Your task to perform on an android device: Go to internet settings Image 0: 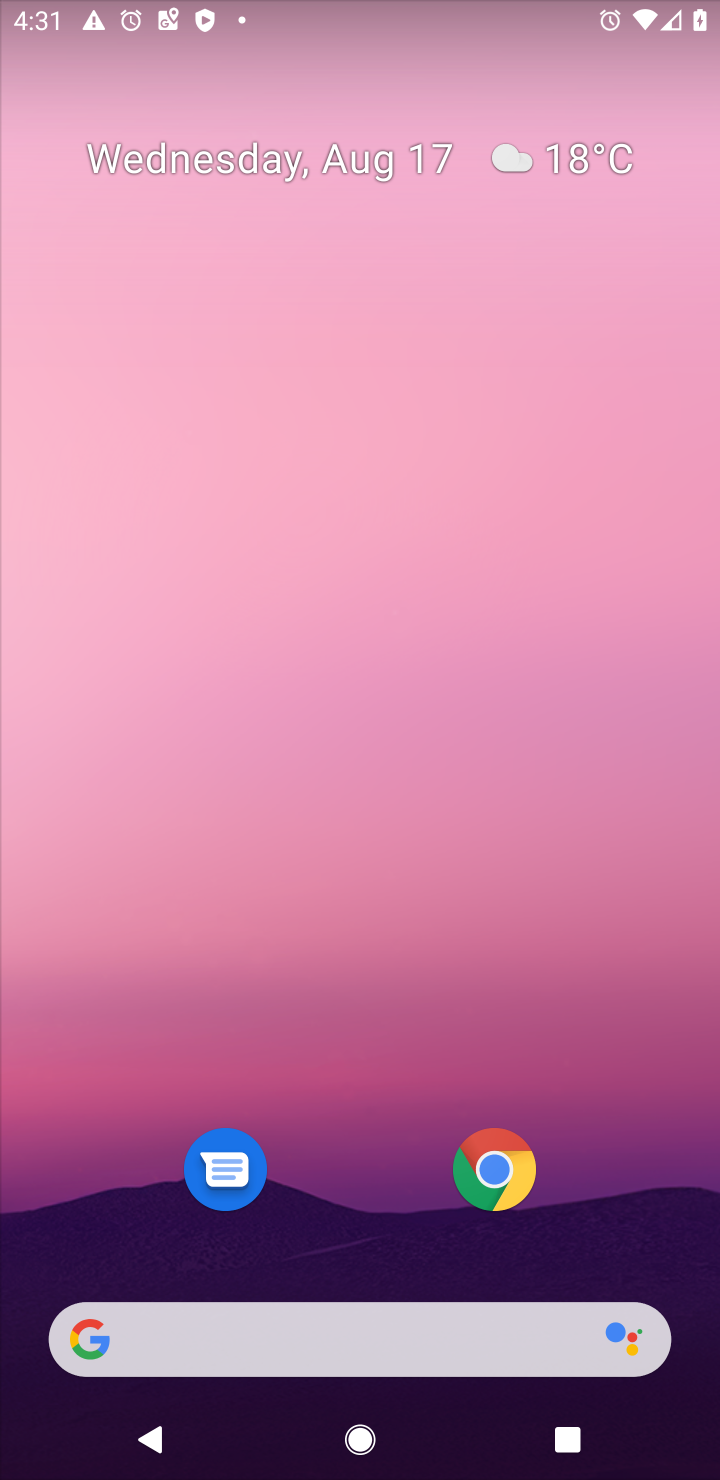
Step 0: drag from (342, 1093) to (331, 183)
Your task to perform on an android device: Go to internet settings Image 1: 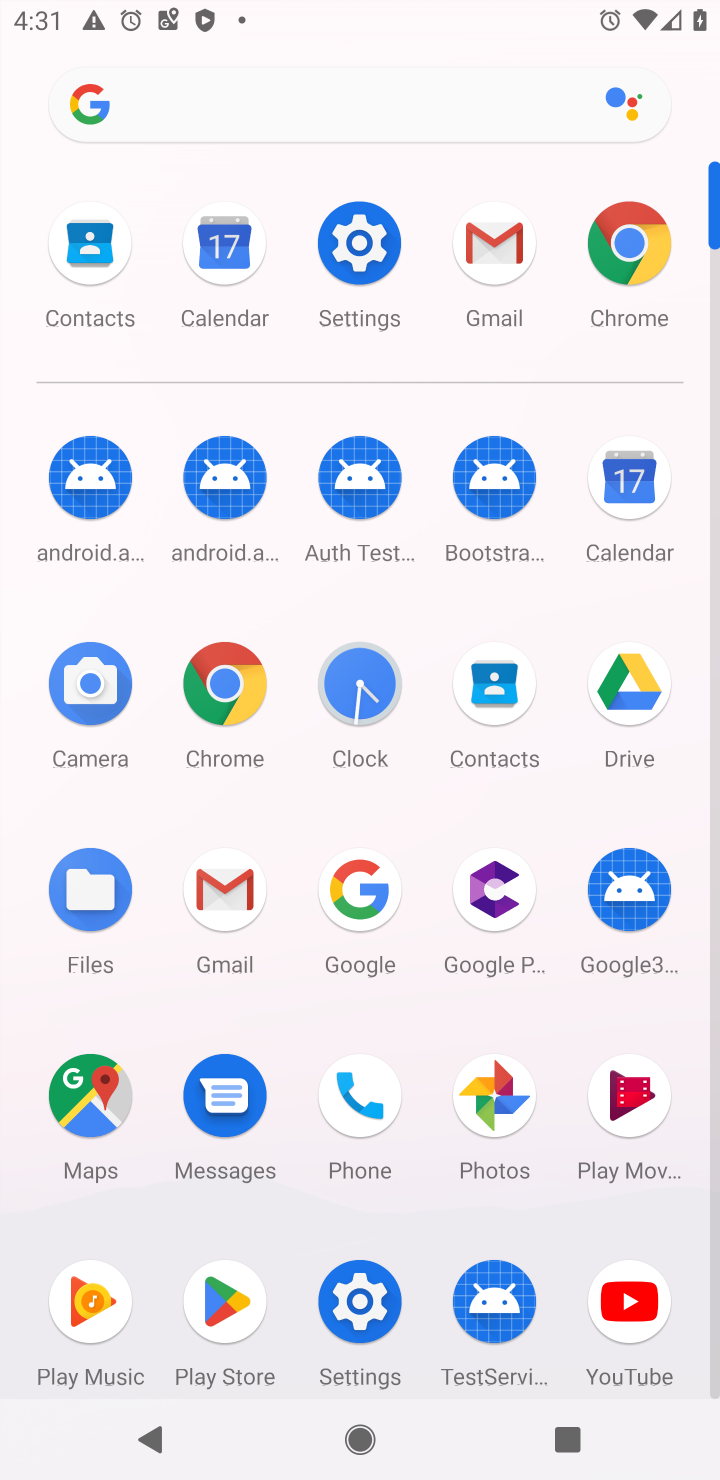
Step 1: click (361, 1294)
Your task to perform on an android device: Go to internet settings Image 2: 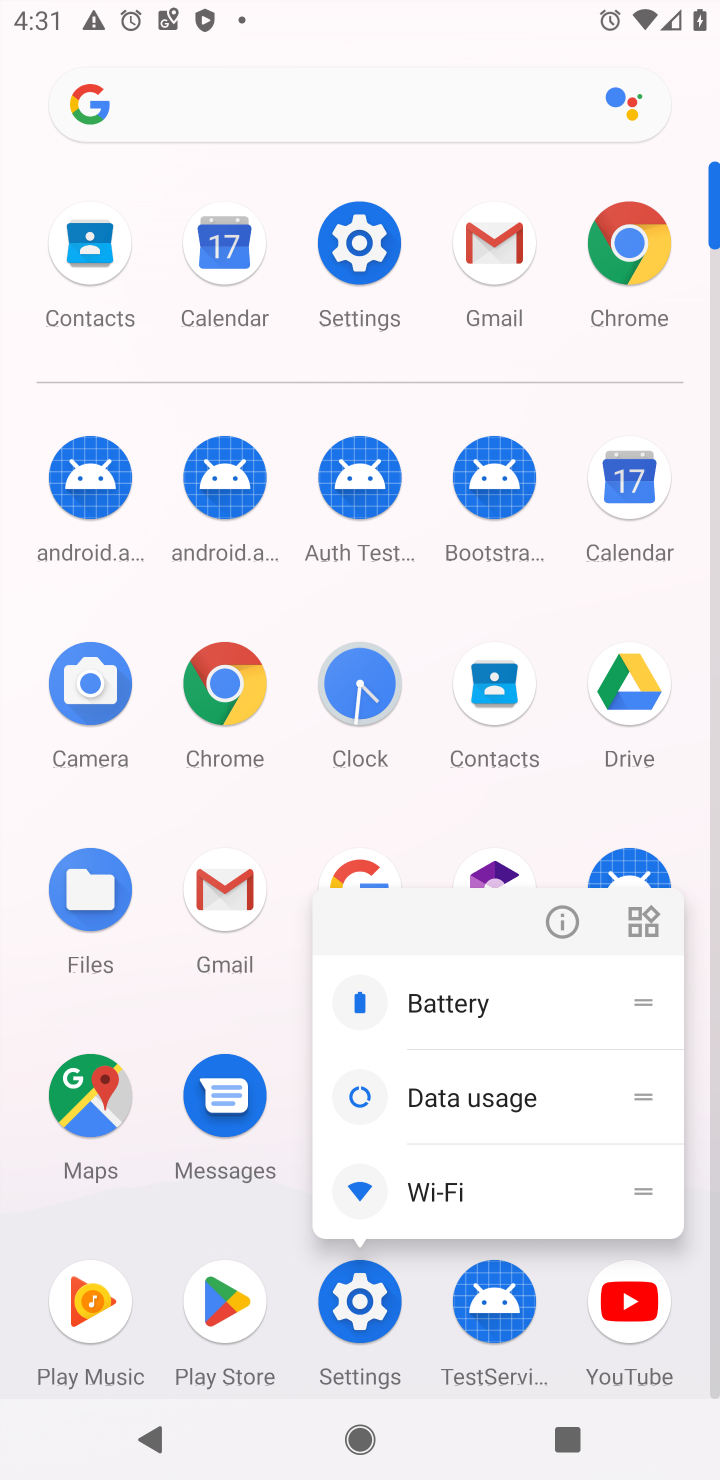
Step 2: click (366, 1304)
Your task to perform on an android device: Go to internet settings Image 3: 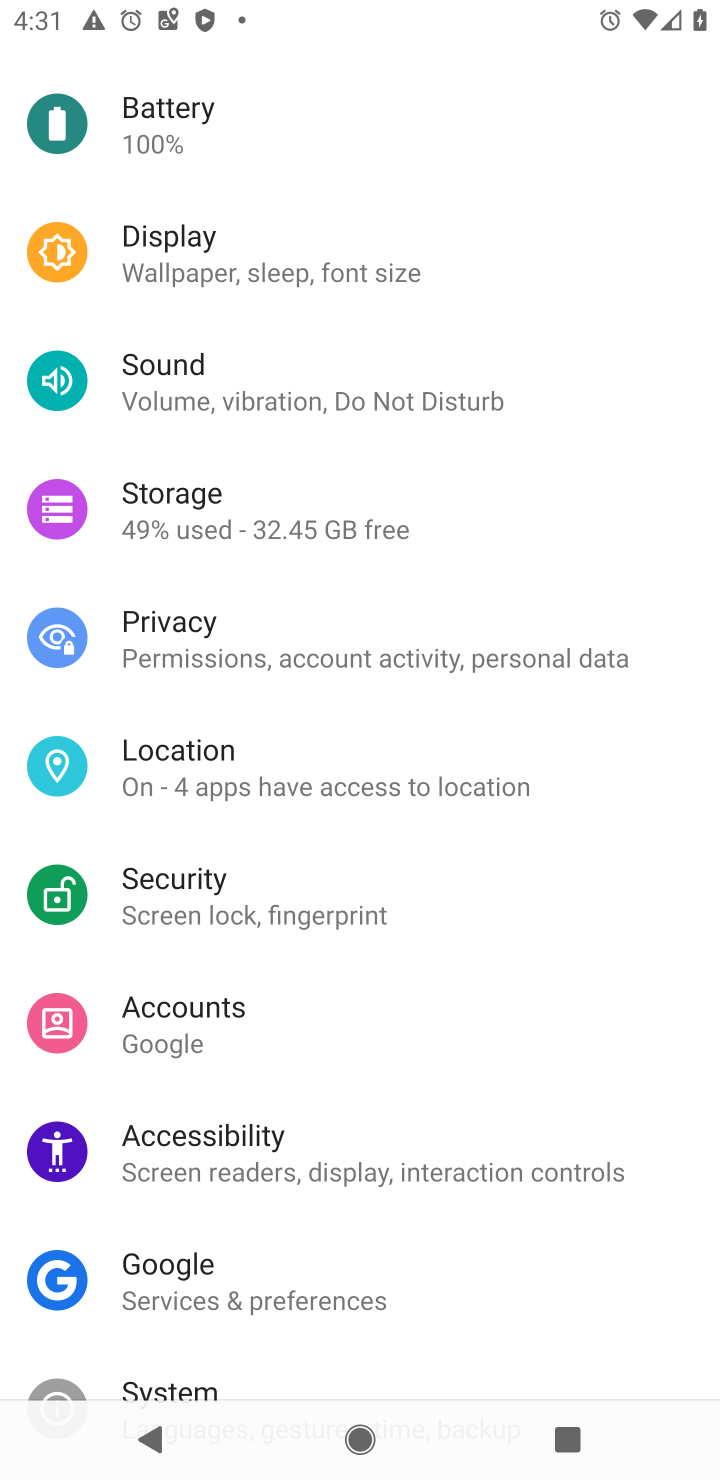
Step 3: drag from (437, 425) to (437, 1424)
Your task to perform on an android device: Go to internet settings Image 4: 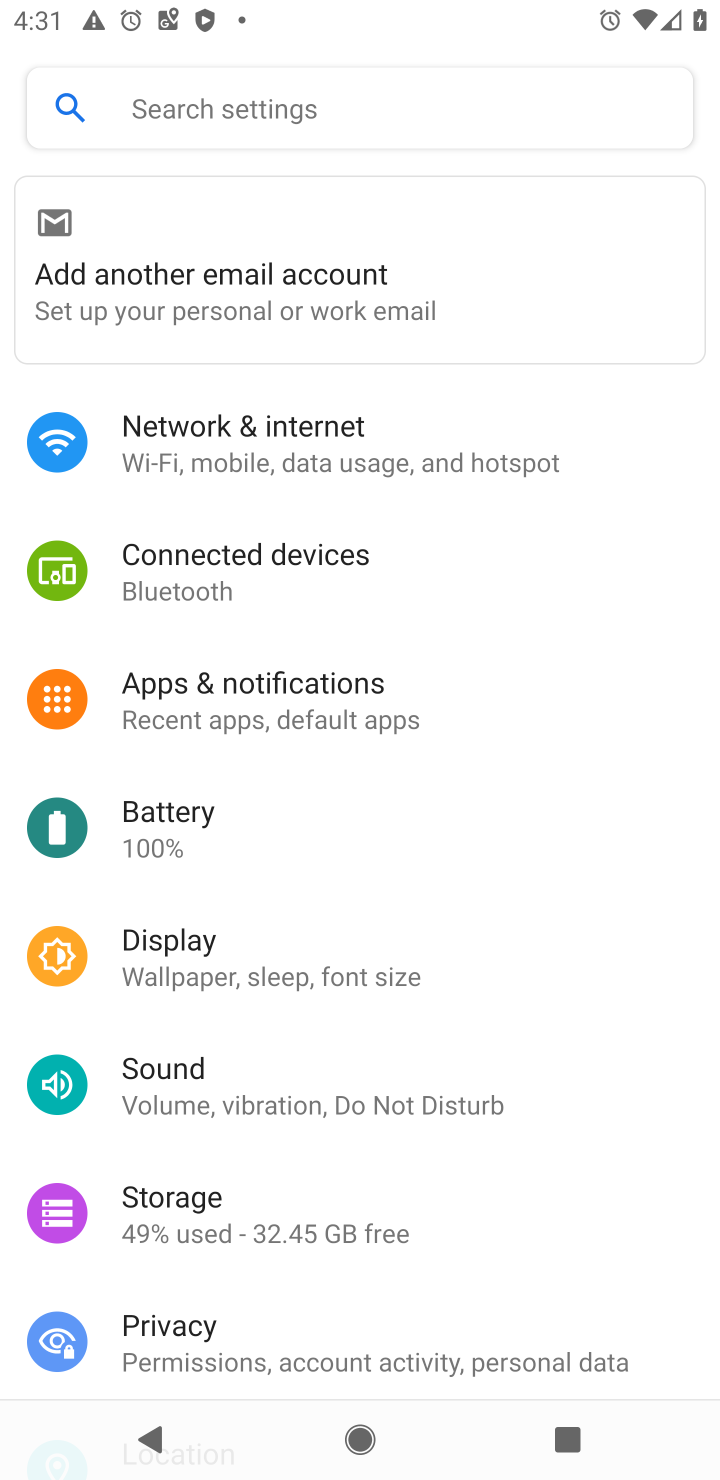
Step 4: click (282, 425)
Your task to perform on an android device: Go to internet settings Image 5: 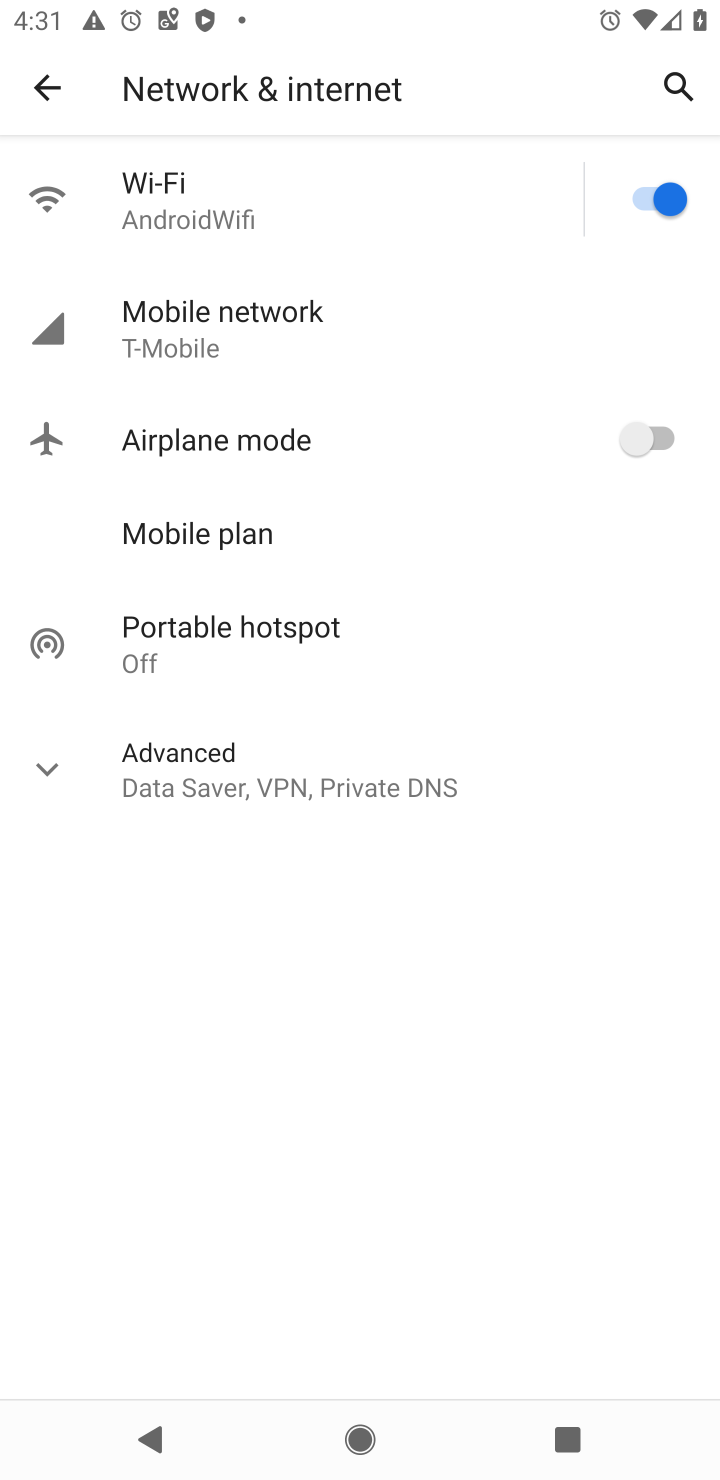
Step 5: task complete